Your task to perform on an android device: Go to ESPN.com Image 0: 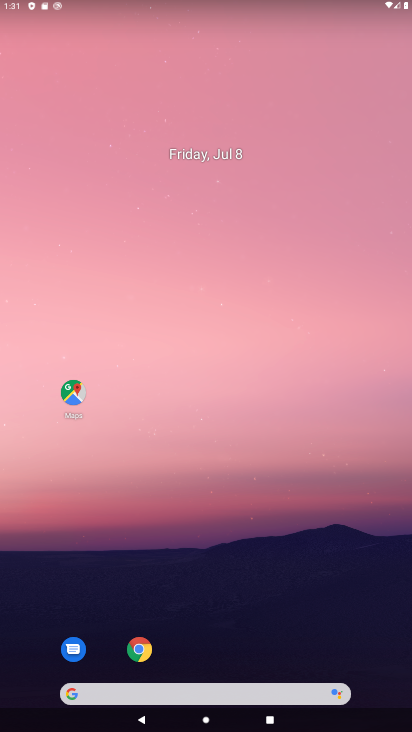
Step 0: drag from (268, 585) to (137, 2)
Your task to perform on an android device: Go to ESPN.com Image 1: 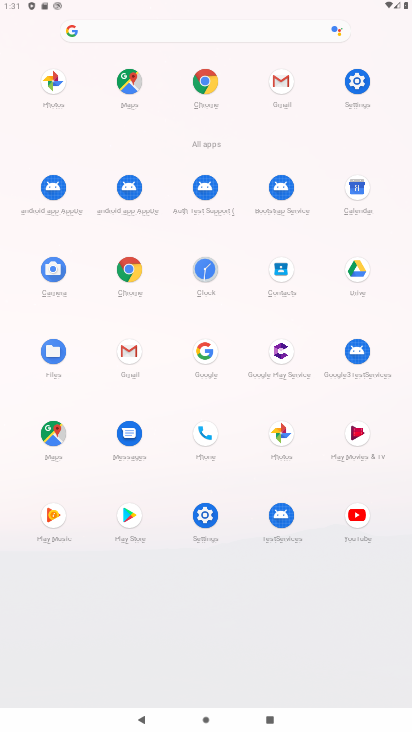
Step 1: click (209, 75)
Your task to perform on an android device: Go to ESPN.com Image 2: 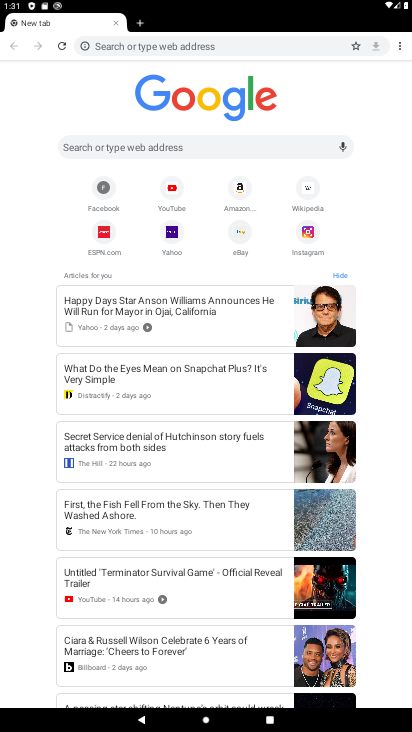
Step 2: click (109, 230)
Your task to perform on an android device: Go to ESPN.com Image 3: 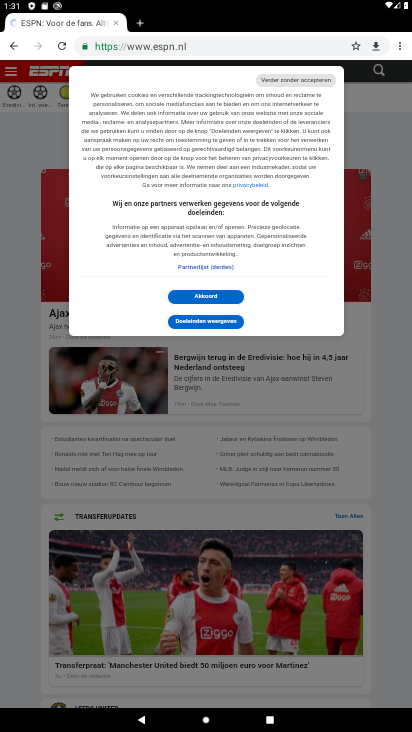
Step 3: task complete